Your task to perform on an android device: see creations saved in the google photos Image 0: 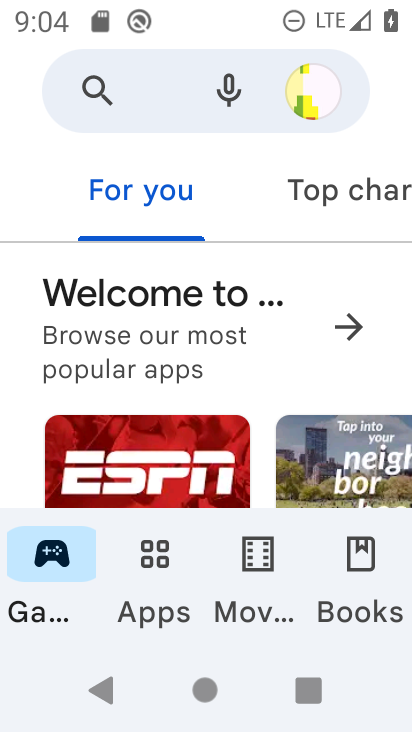
Step 0: press home button
Your task to perform on an android device: see creations saved in the google photos Image 1: 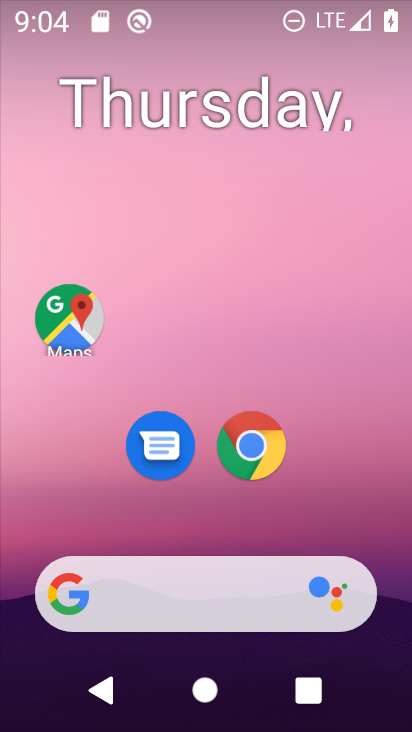
Step 1: drag from (393, 637) to (337, 87)
Your task to perform on an android device: see creations saved in the google photos Image 2: 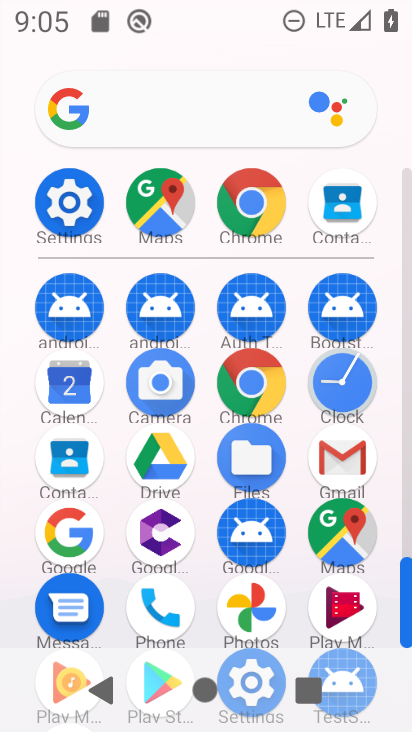
Step 2: click (243, 623)
Your task to perform on an android device: see creations saved in the google photos Image 3: 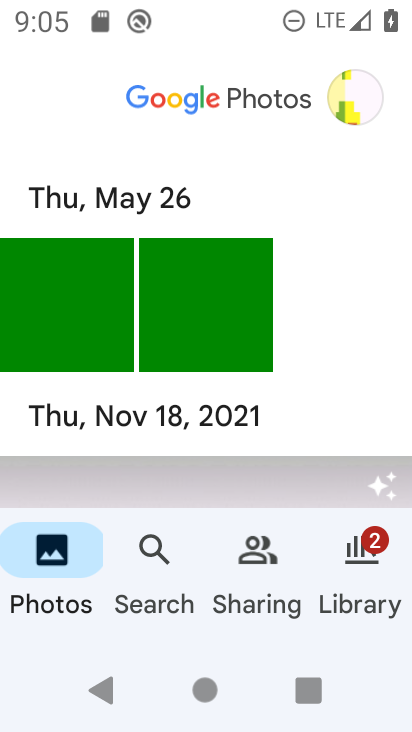
Step 3: click (171, 544)
Your task to perform on an android device: see creations saved in the google photos Image 4: 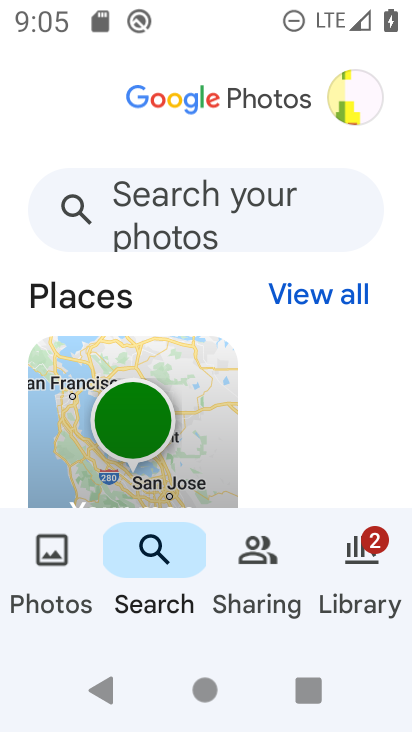
Step 4: drag from (277, 480) to (261, 36)
Your task to perform on an android device: see creations saved in the google photos Image 5: 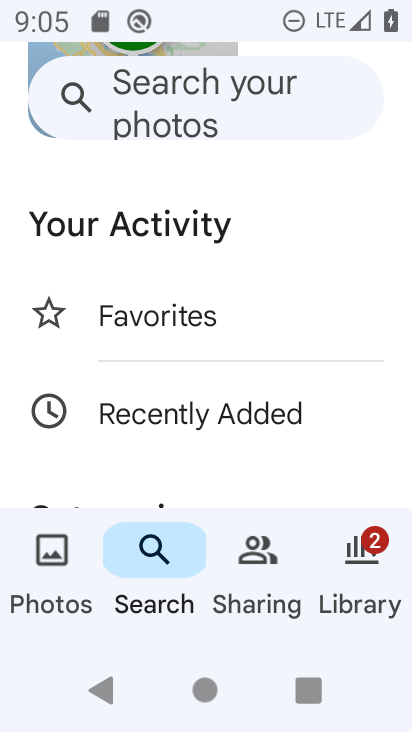
Step 5: drag from (142, 484) to (225, 77)
Your task to perform on an android device: see creations saved in the google photos Image 6: 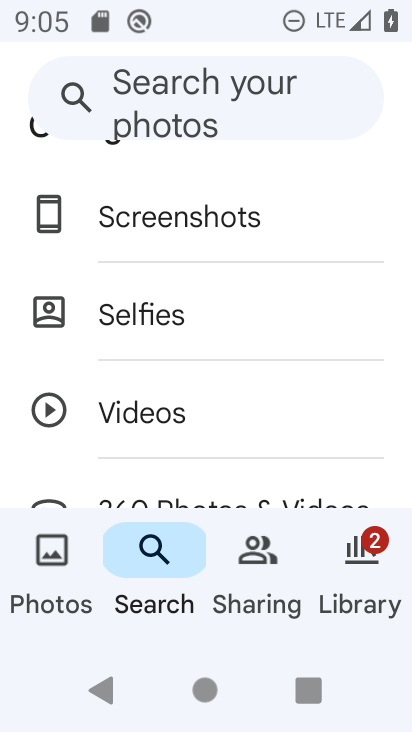
Step 6: drag from (205, 449) to (222, 129)
Your task to perform on an android device: see creations saved in the google photos Image 7: 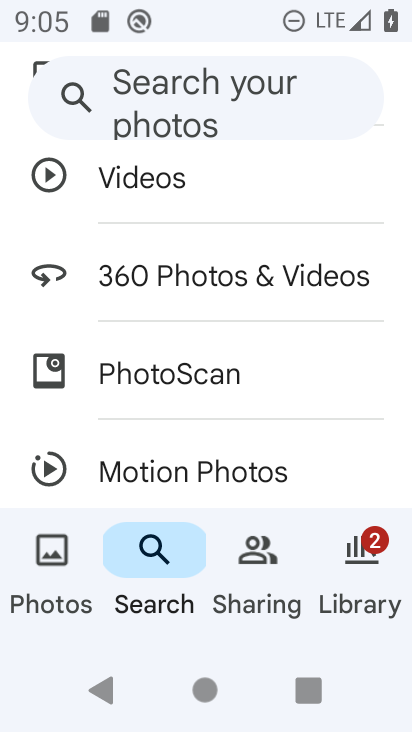
Step 7: drag from (224, 450) to (210, 75)
Your task to perform on an android device: see creations saved in the google photos Image 8: 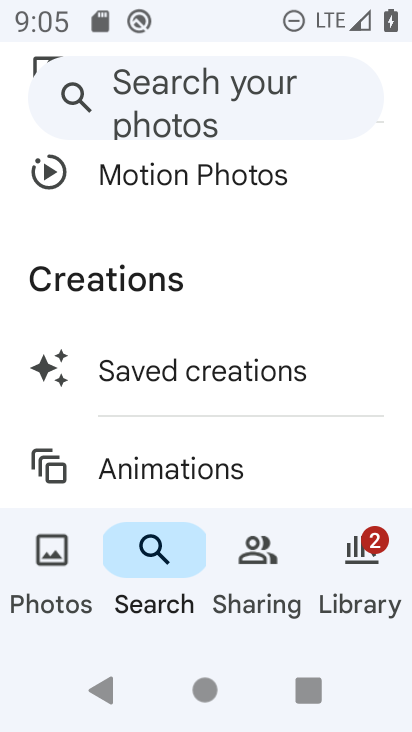
Step 8: click (198, 368)
Your task to perform on an android device: see creations saved in the google photos Image 9: 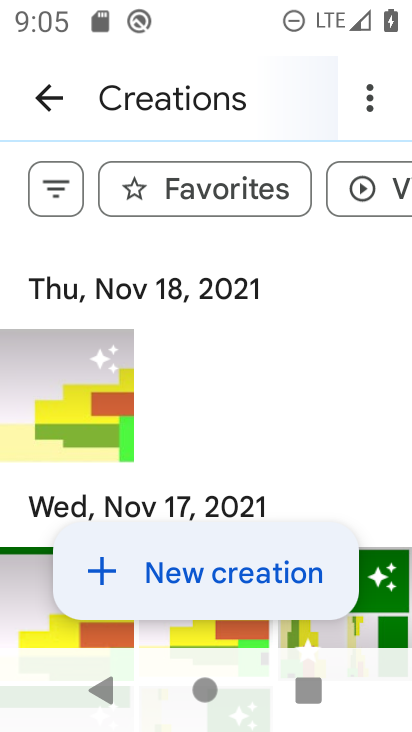
Step 9: task complete